Your task to perform on an android device: find which apps use the phone's location Image 0: 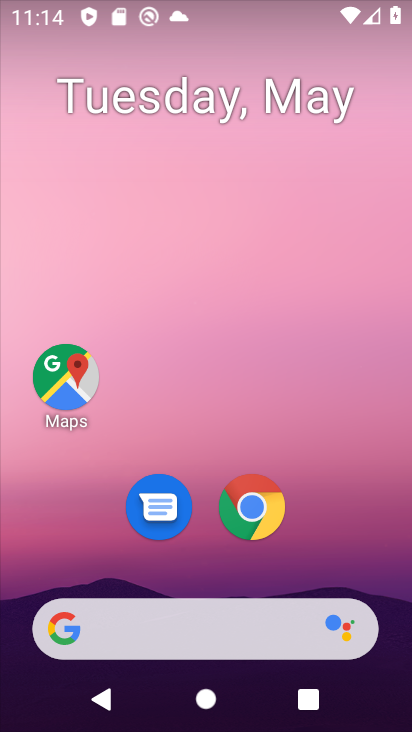
Step 0: drag from (229, 584) to (178, 129)
Your task to perform on an android device: find which apps use the phone's location Image 1: 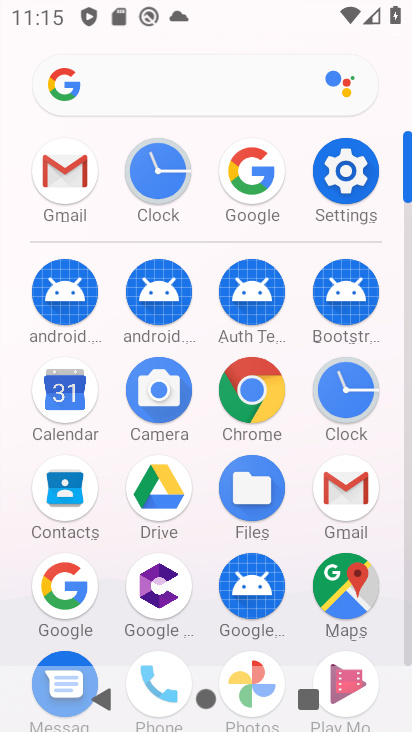
Step 1: drag from (200, 520) to (197, 231)
Your task to perform on an android device: find which apps use the phone's location Image 2: 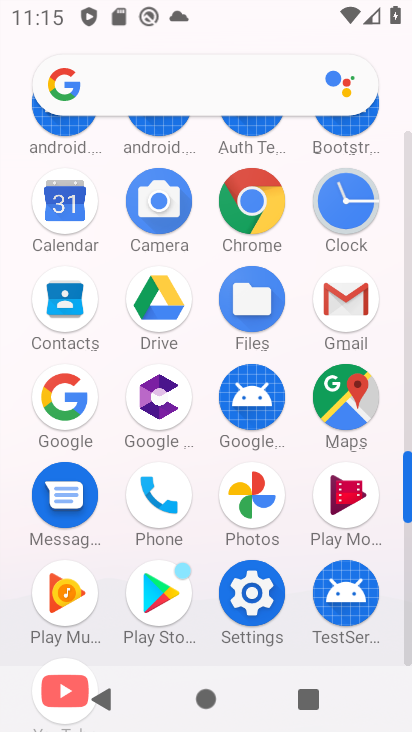
Step 2: click (172, 497)
Your task to perform on an android device: find which apps use the phone's location Image 3: 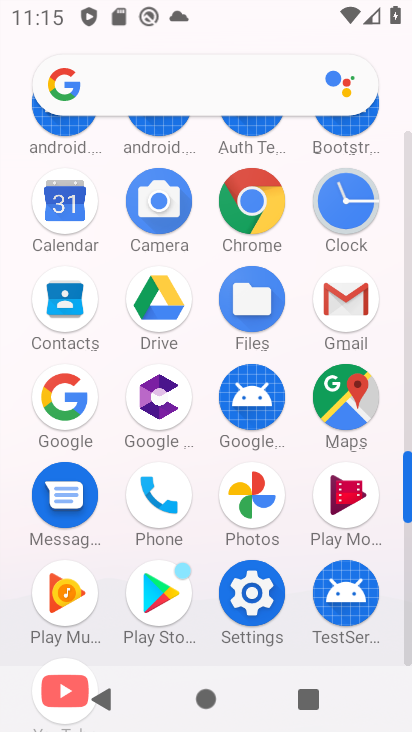
Step 3: click (171, 497)
Your task to perform on an android device: find which apps use the phone's location Image 4: 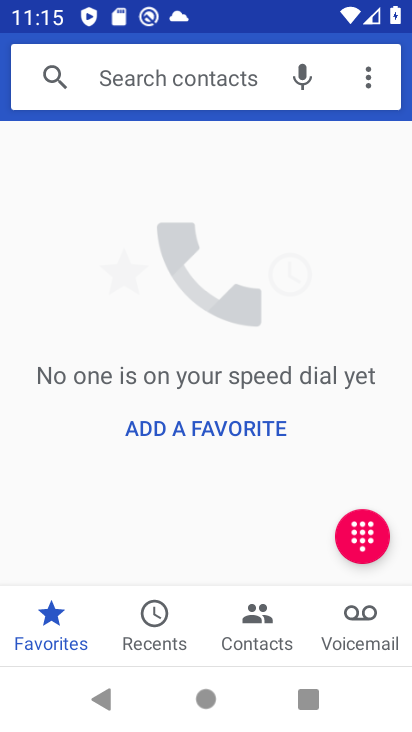
Step 4: press back button
Your task to perform on an android device: find which apps use the phone's location Image 5: 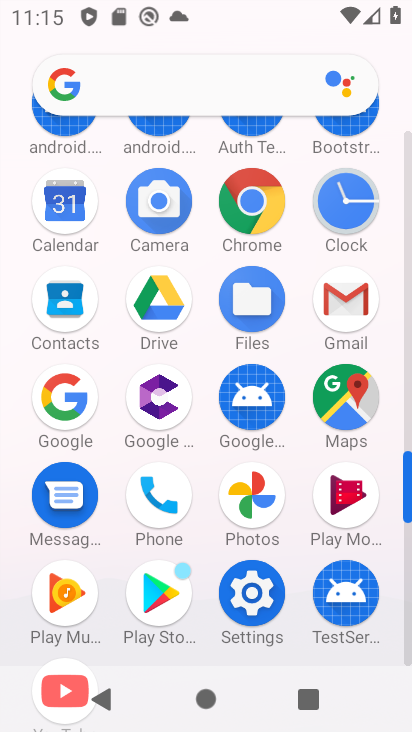
Step 5: click (156, 496)
Your task to perform on an android device: find which apps use the phone's location Image 6: 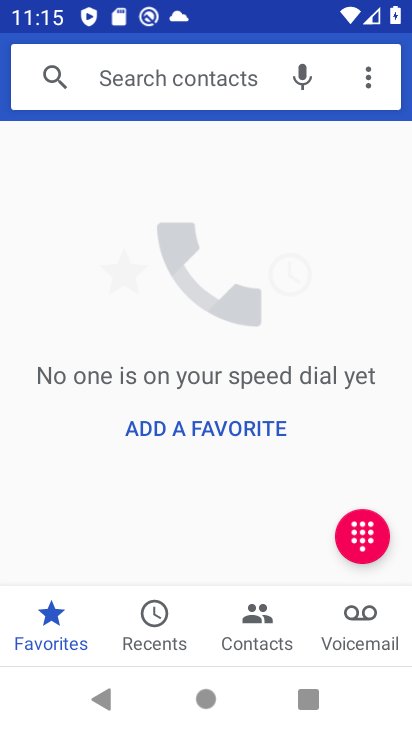
Step 6: press back button
Your task to perform on an android device: find which apps use the phone's location Image 7: 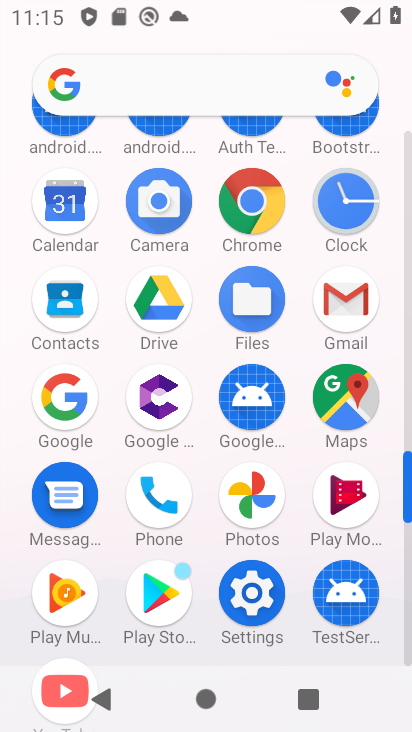
Step 7: click (257, 586)
Your task to perform on an android device: find which apps use the phone's location Image 8: 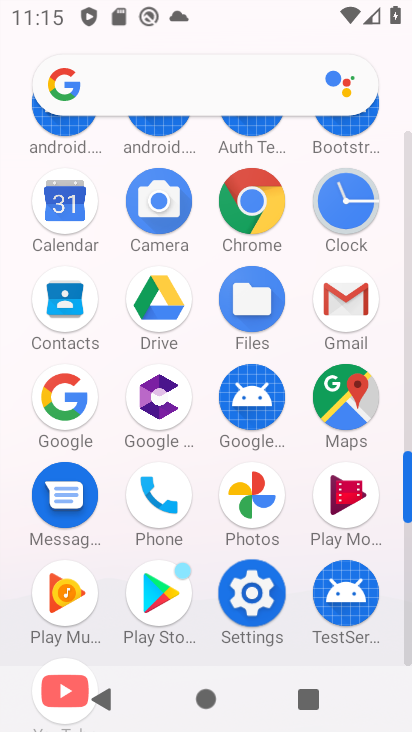
Step 8: click (257, 586)
Your task to perform on an android device: find which apps use the phone's location Image 9: 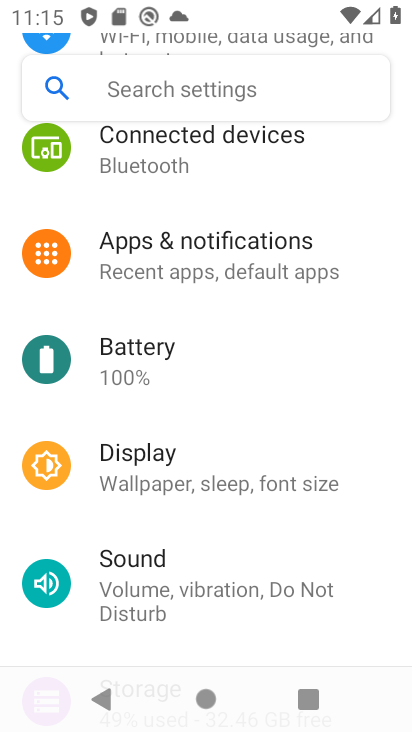
Step 9: drag from (181, 516) to (180, 104)
Your task to perform on an android device: find which apps use the phone's location Image 10: 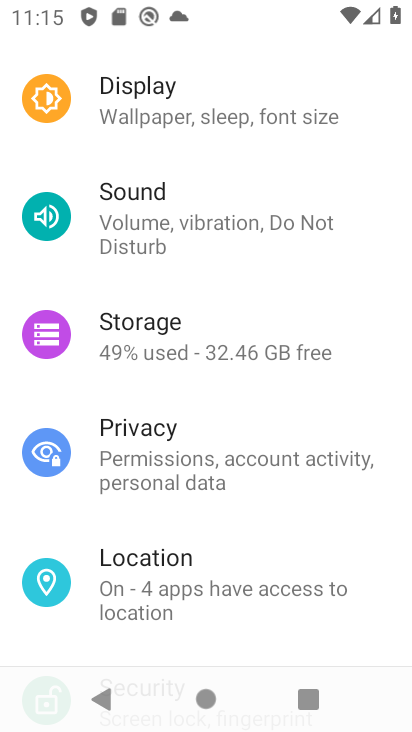
Step 10: drag from (170, 407) to (170, 75)
Your task to perform on an android device: find which apps use the phone's location Image 11: 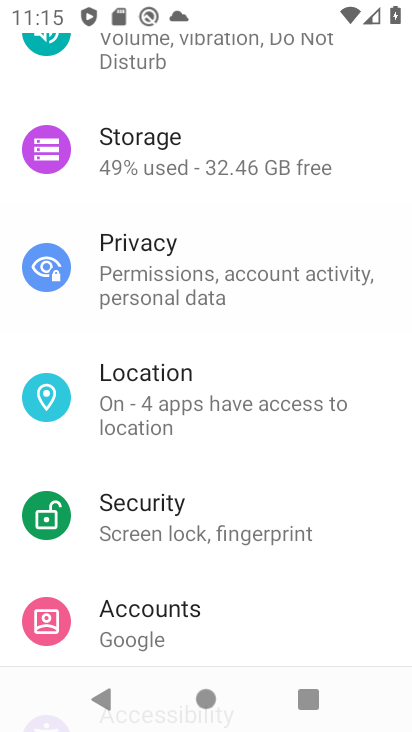
Step 11: drag from (179, 378) to (187, 122)
Your task to perform on an android device: find which apps use the phone's location Image 12: 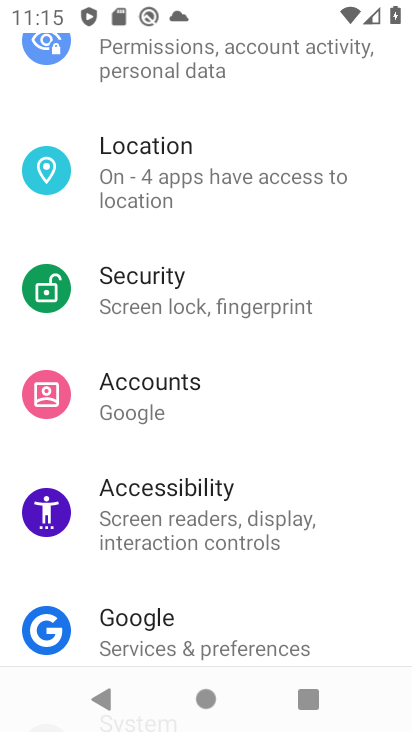
Step 12: click (159, 172)
Your task to perform on an android device: find which apps use the phone's location Image 13: 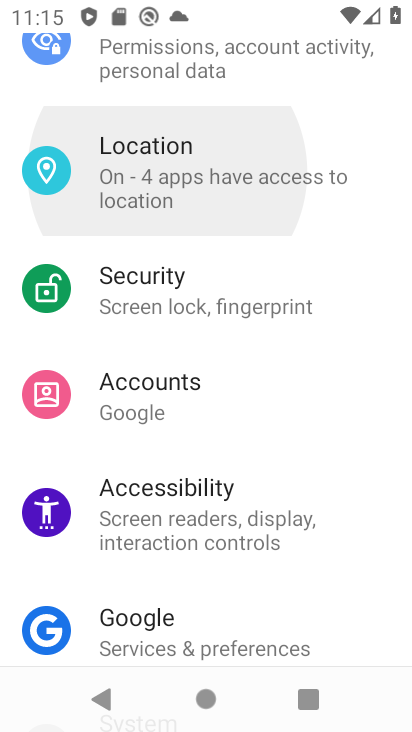
Step 13: click (159, 172)
Your task to perform on an android device: find which apps use the phone's location Image 14: 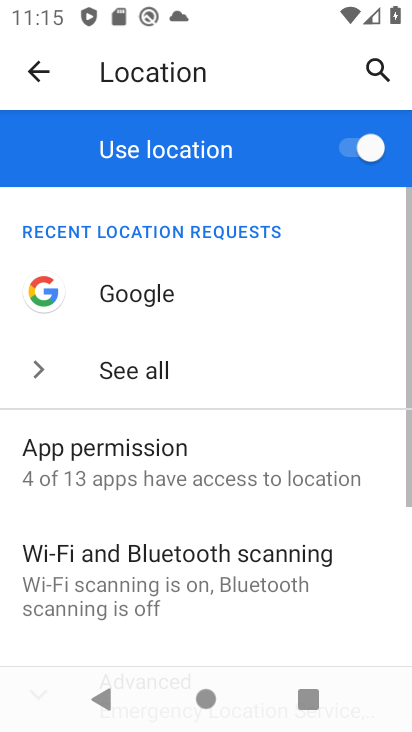
Step 14: click (78, 480)
Your task to perform on an android device: find which apps use the phone's location Image 15: 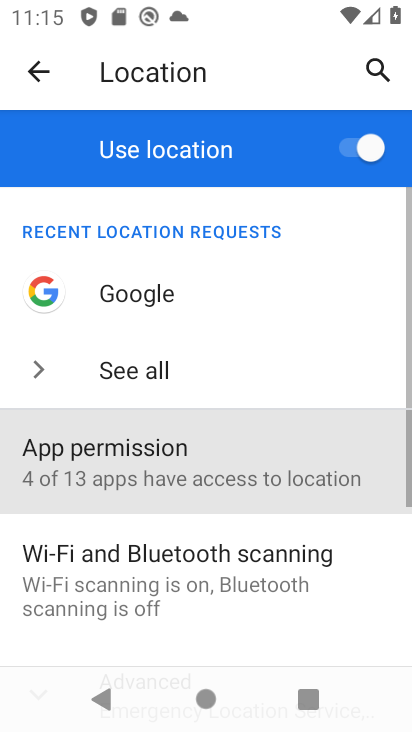
Step 15: click (86, 455)
Your task to perform on an android device: find which apps use the phone's location Image 16: 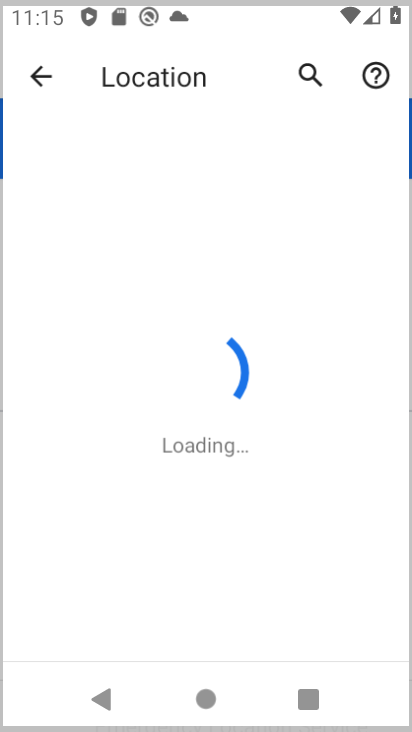
Step 16: click (87, 454)
Your task to perform on an android device: find which apps use the phone's location Image 17: 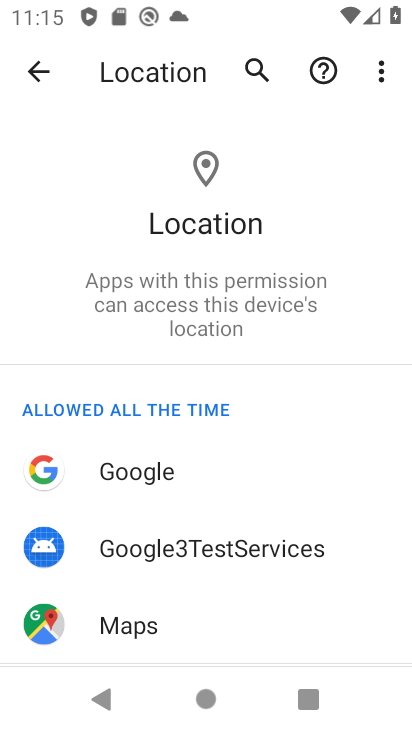
Step 17: task complete